Your task to perform on an android device: Find coffee shops on Maps Image 0: 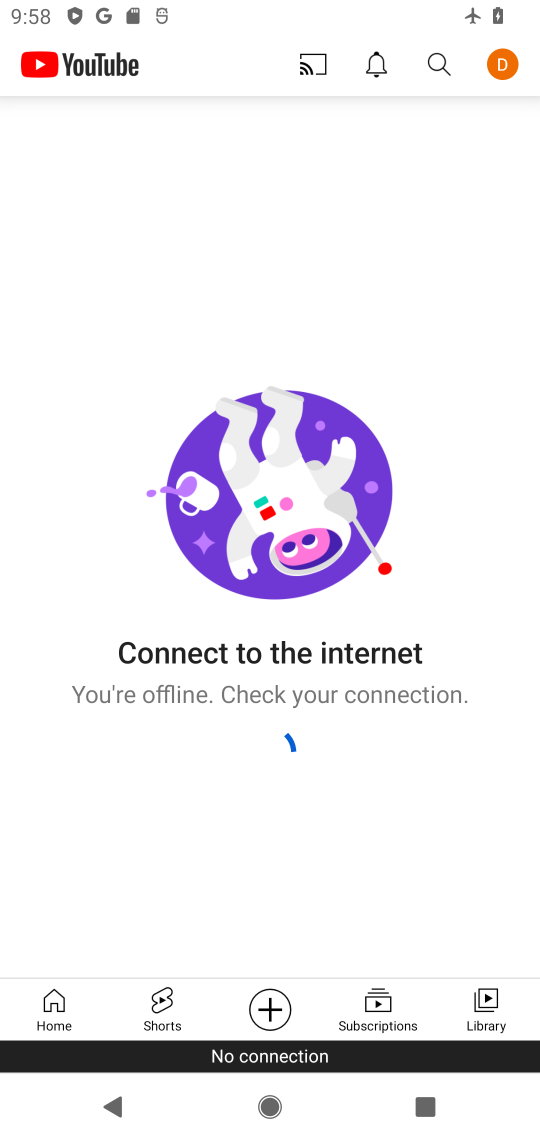
Step 0: press home button
Your task to perform on an android device: Find coffee shops on Maps Image 1: 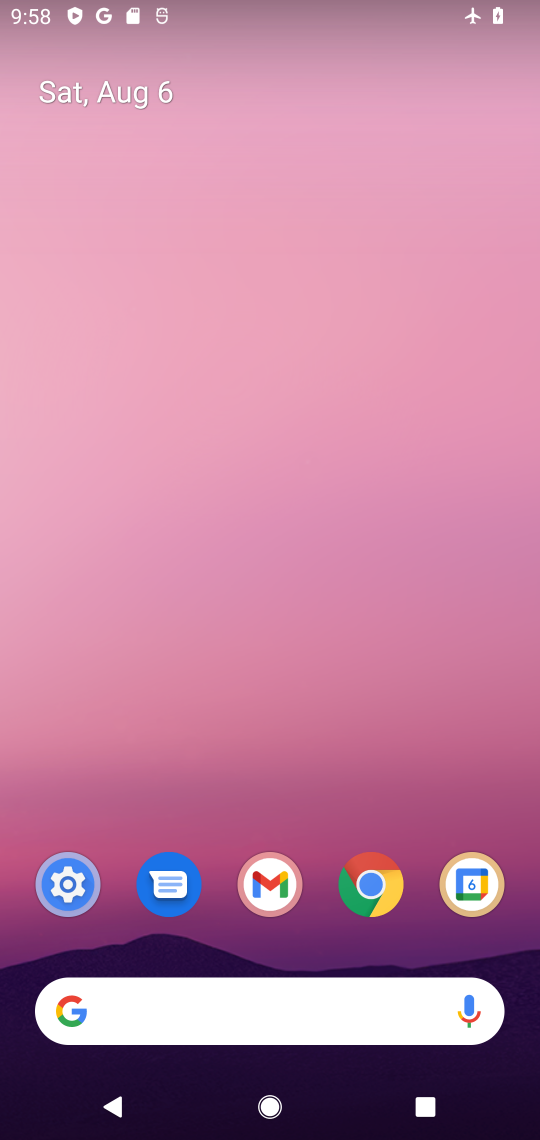
Step 1: drag from (334, 947) to (349, 105)
Your task to perform on an android device: Find coffee shops on Maps Image 2: 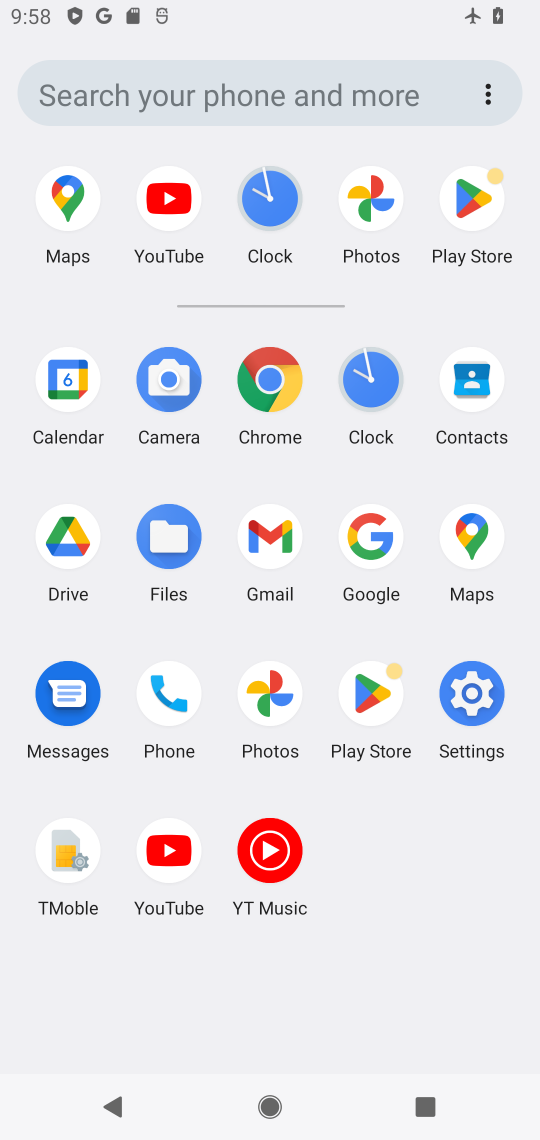
Step 2: click (472, 530)
Your task to perform on an android device: Find coffee shops on Maps Image 3: 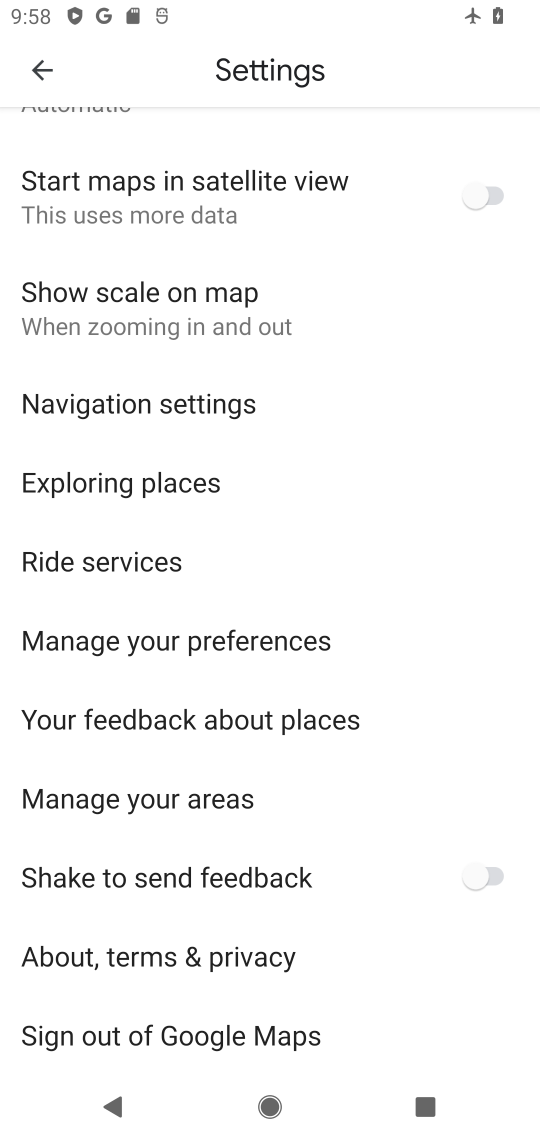
Step 3: press back button
Your task to perform on an android device: Find coffee shops on Maps Image 4: 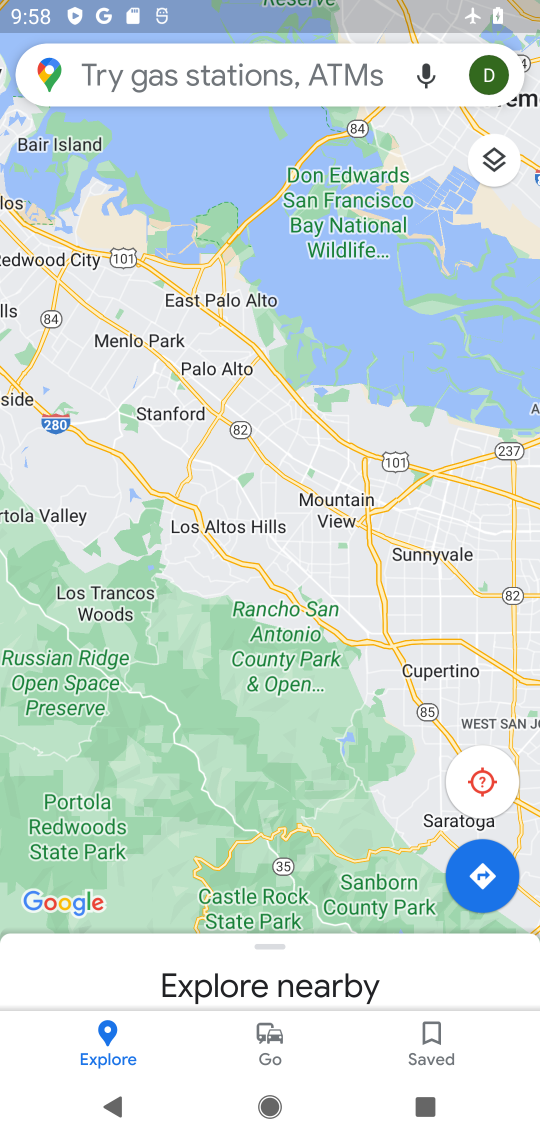
Step 4: click (175, 76)
Your task to perform on an android device: Find coffee shops on Maps Image 5: 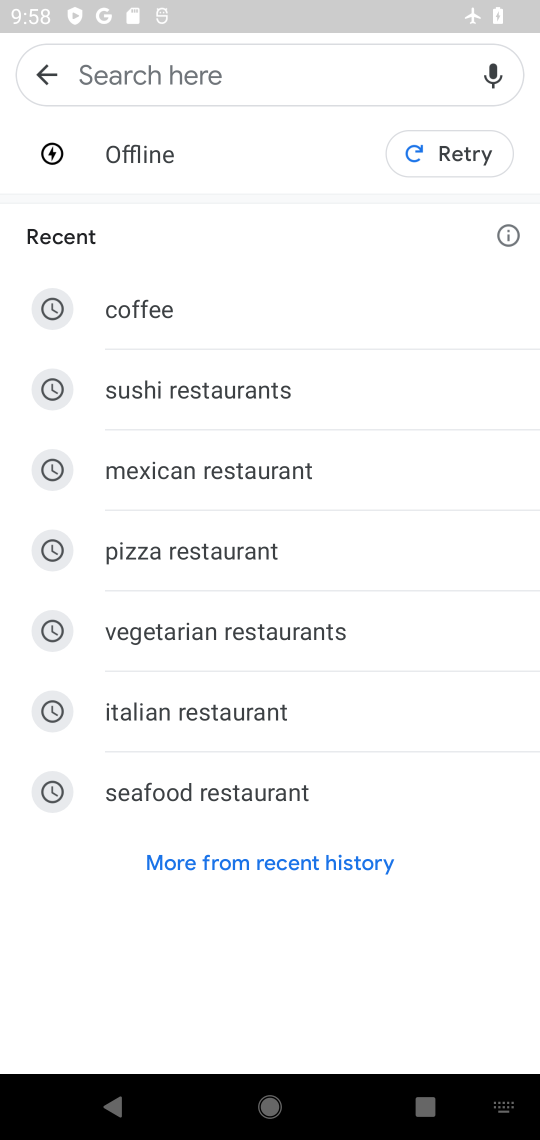
Step 5: type "coffee shops"
Your task to perform on an android device: Find coffee shops on Maps Image 6: 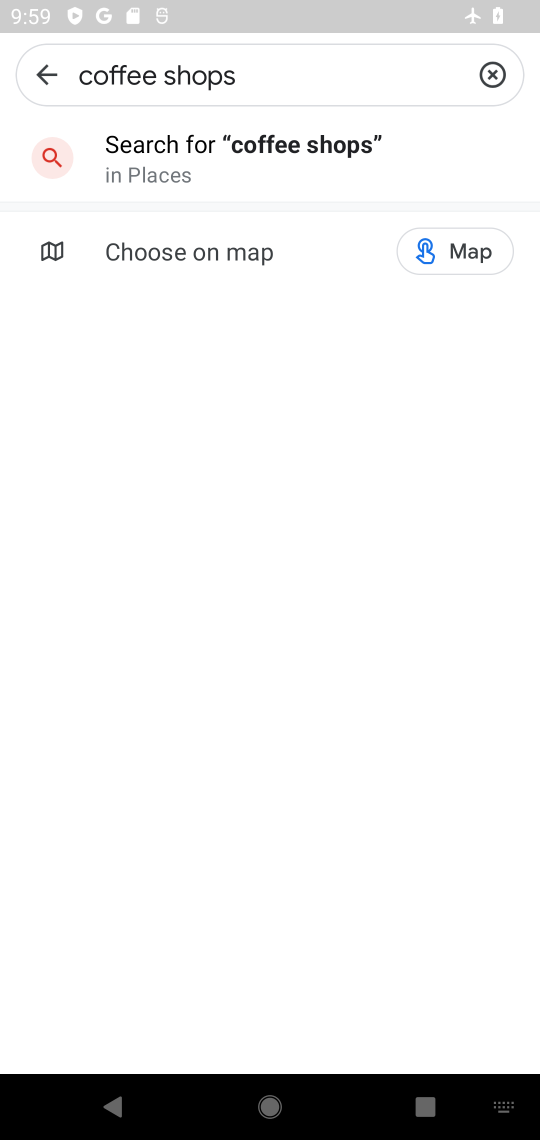
Step 6: click (291, 143)
Your task to perform on an android device: Find coffee shops on Maps Image 7: 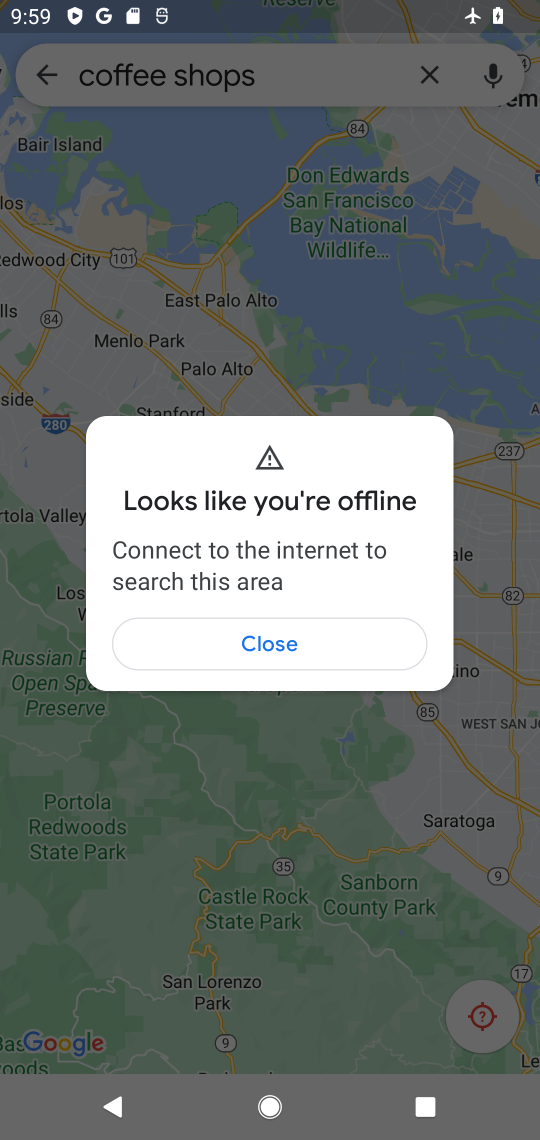
Step 7: click (262, 640)
Your task to perform on an android device: Find coffee shops on Maps Image 8: 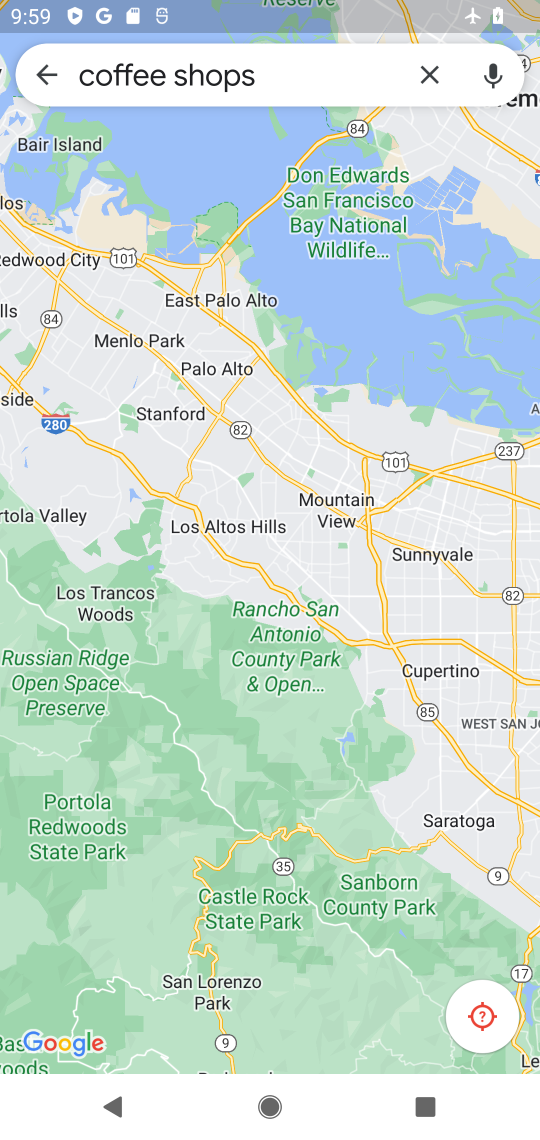
Step 8: task complete